Your task to perform on an android device: change the clock style Image 0: 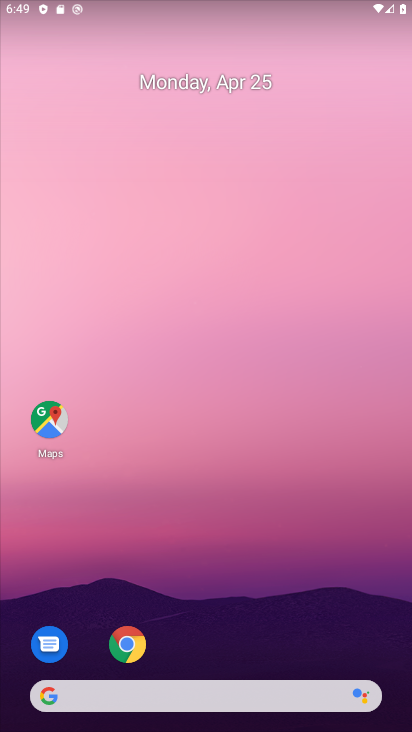
Step 0: drag from (303, 574) to (302, 57)
Your task to perform on an android device: change the clock style Image 1: 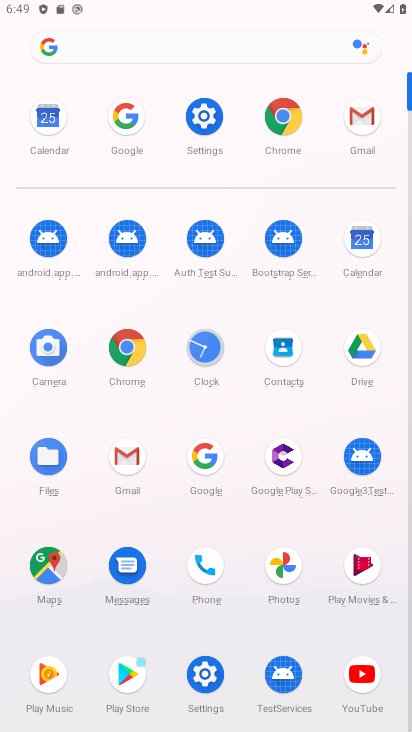
Step 1: click (209, 350)
Your task to perform on an android device: change the clock style Image 2: 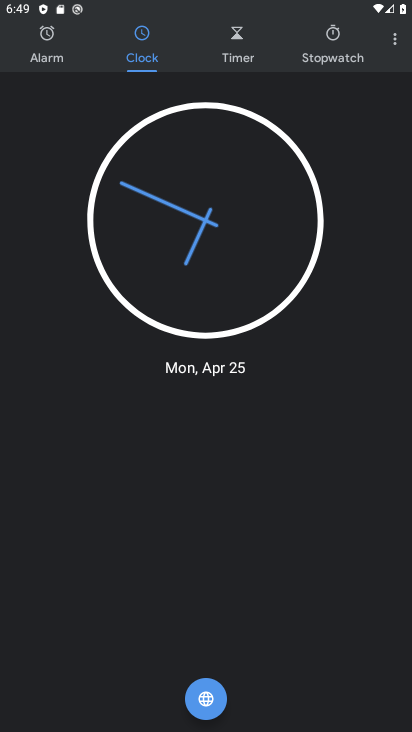
Step 2: click (399, 37)
Your task to perform on an android device: change the clock style Image 3: 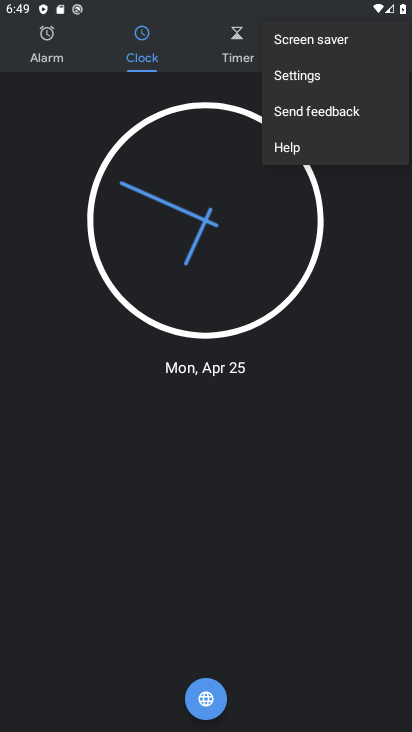
Step 3: click (326, 72)
Your task to perform on an android device: change the clock style Image 4: 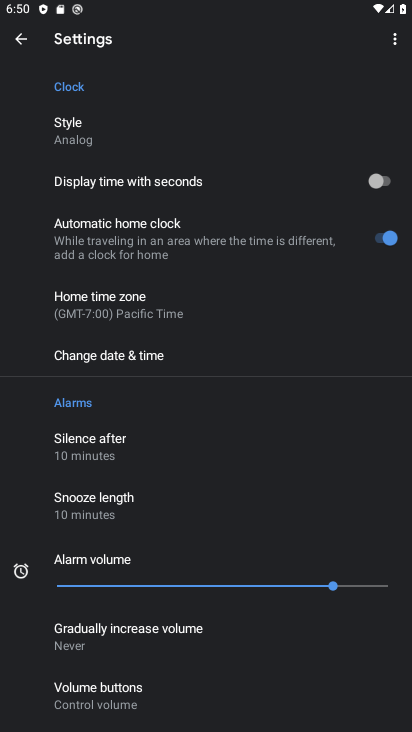
Step 4: click (103, 136)
Your task to perform on an android device: change the clock style Image 5: 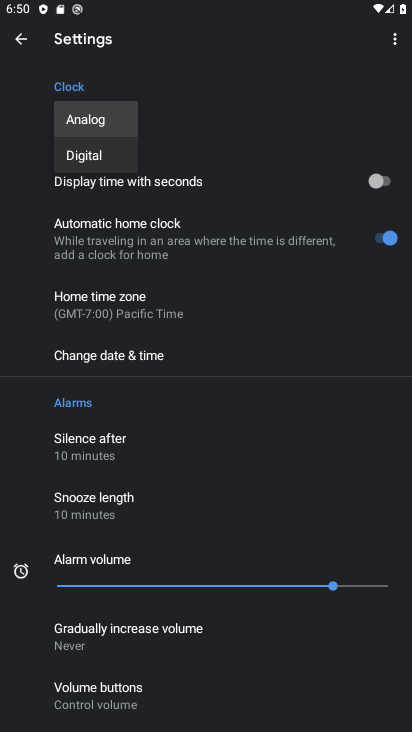
Step 5: click (110, 151)
Your task to perform on an android device: change the clock style Image 6: 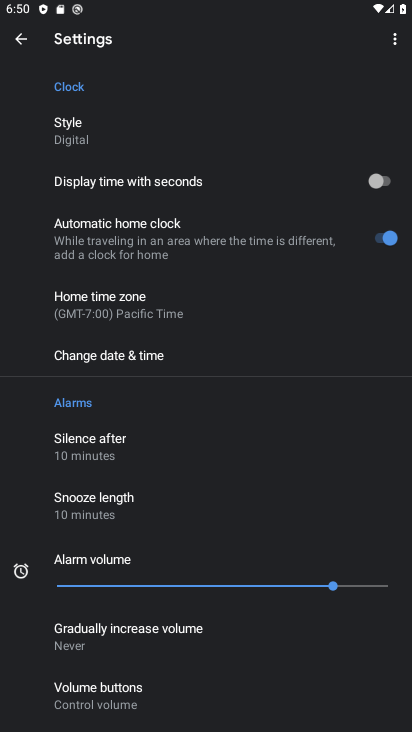
Step 6: task complete